Your task to perform on an android device: Open wifi settings Image 0: 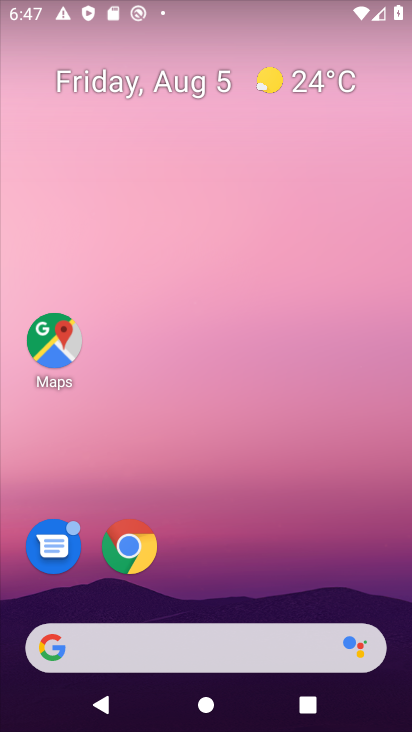
Step 0: drag from (174, 607) to (207, 264)
Your task to perform on an android device: Open wifi settings Image 1: 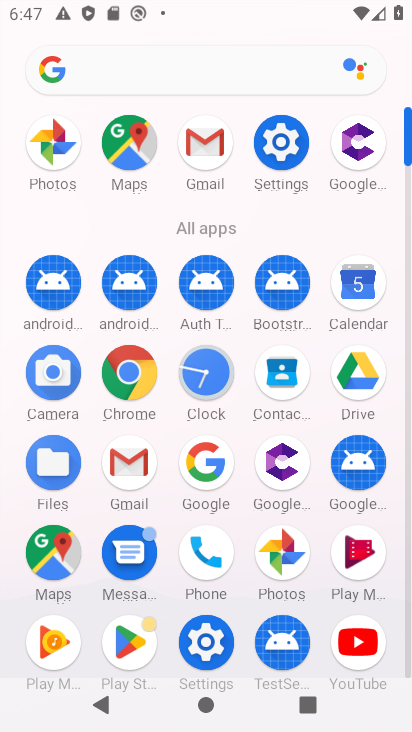
Step 1: click (195, 638)
Your task to perform on an android device: Open wifi settings Image 2: 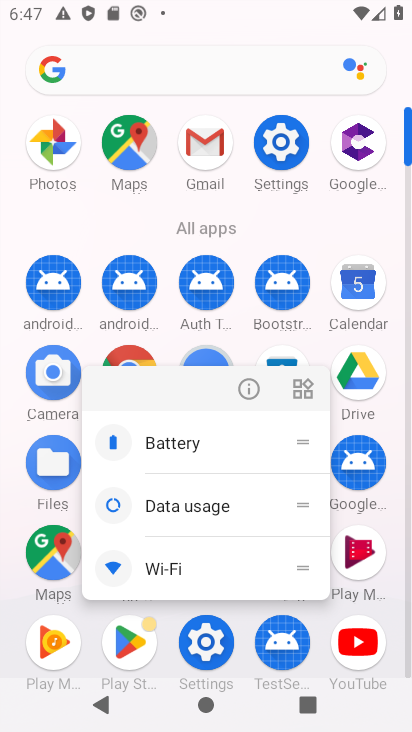
Step 2: click (247, 386)
Your task to perform on an android device: Open wifi settings Image 3: 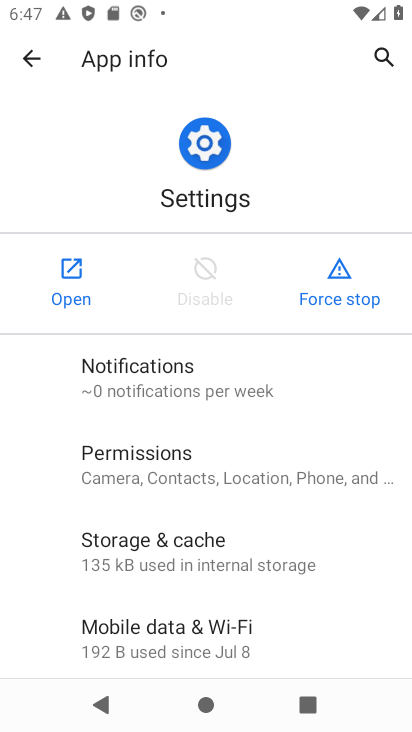
Step 3: click (66, 265)
Your task to perform on an android device: Open wifi settings Image 4: 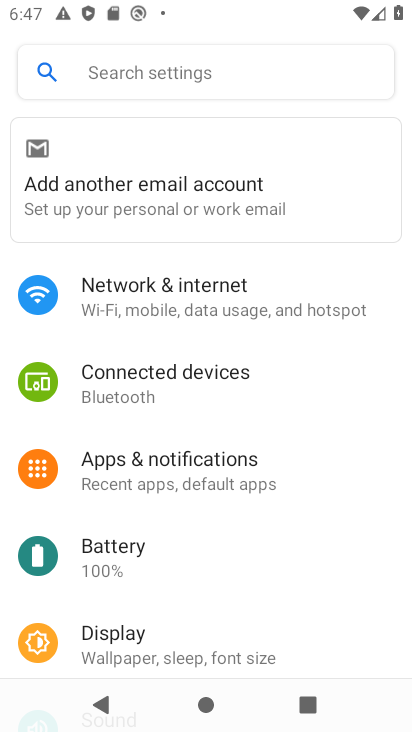
Step 4: click (133, 289)
Your task to perform on an android device: Open wifi settings Image 5: 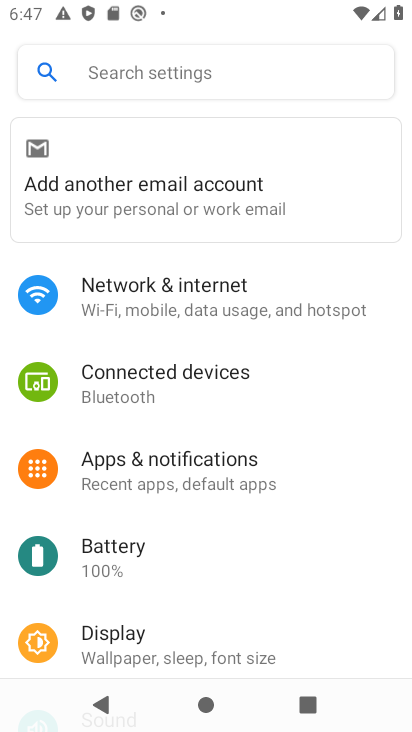
Step 5: click (133, 289)
Your task to perform on an android device: Open wifi settings Image 6: 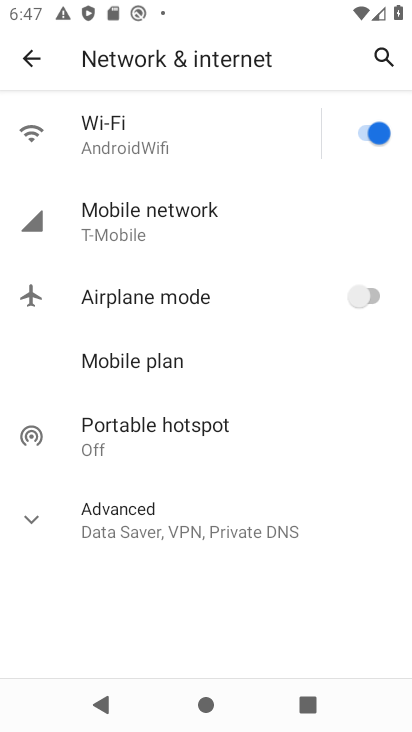
Step 6: click (127, 518)
Your task to perform on an android device: Open wifi settings Image 7: 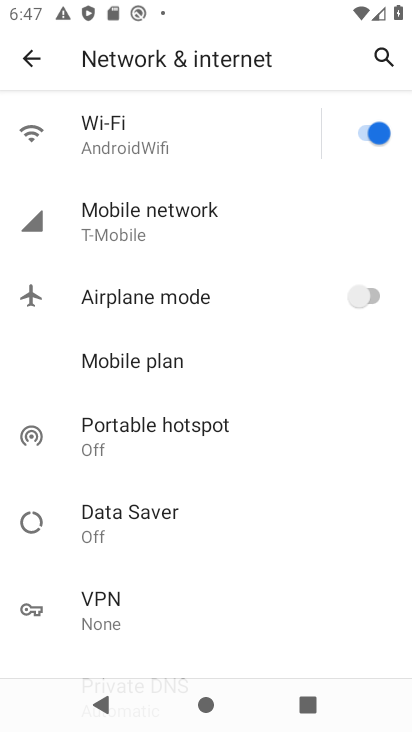
Step 7: drag from (177, 569) to (222, 275)
Your task to perform on an android device: Open wifi settings Image 8: 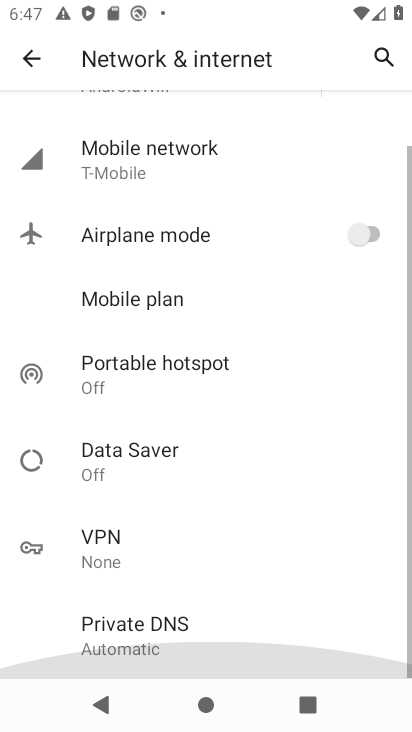
Step 8: drag from (223, 234) to (274, 727)
Your task to perform on an android device: Open wifi settings Image 9: 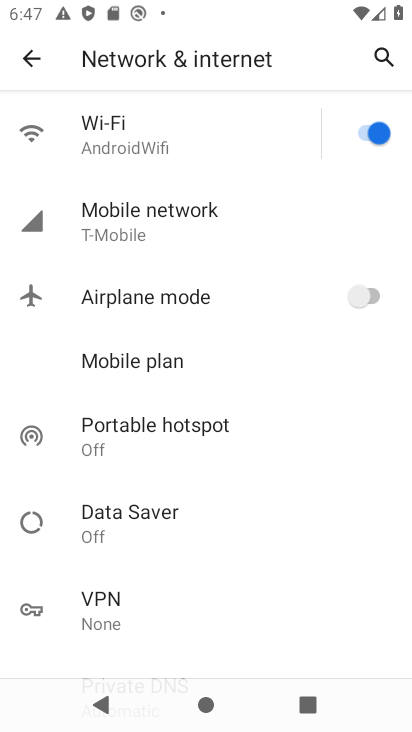
Step 9: click (172, 145)
Your task to perform on an android device: Open wifi settings Image 10: 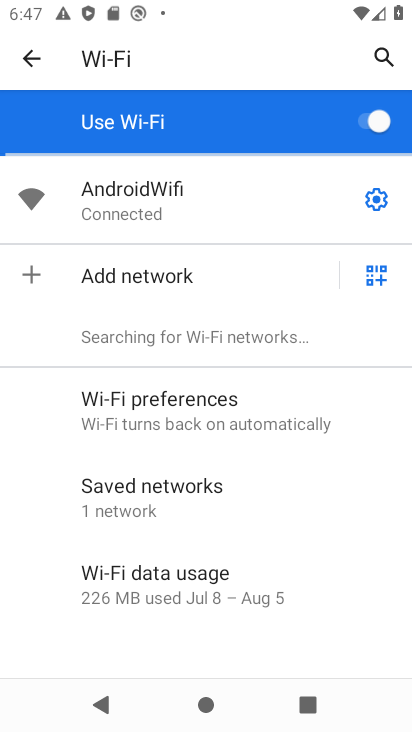
Step 10: click (380, 199)
Your task to perform on an android device: Open wifi settings Image 11: 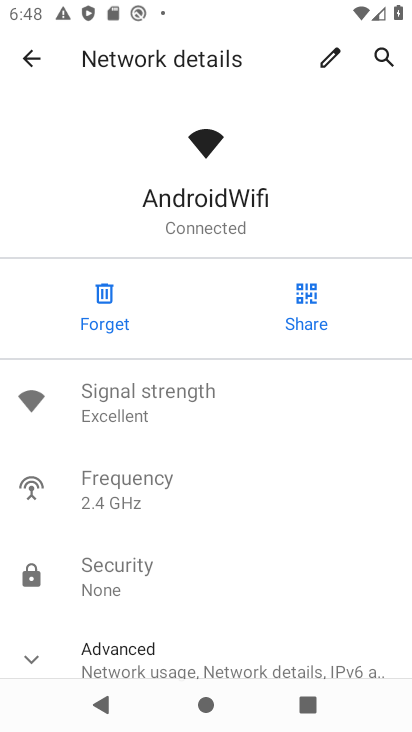
Step 11: task complete